Your task to perform on an android device: change timer sound Image 0: 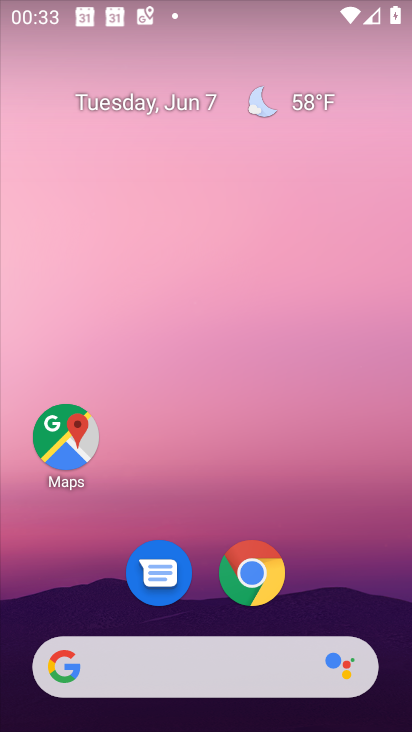
Step 0: drag from (266, 0) to (304, 0)
Your task to perform on an android device: change timer sound Image 1: 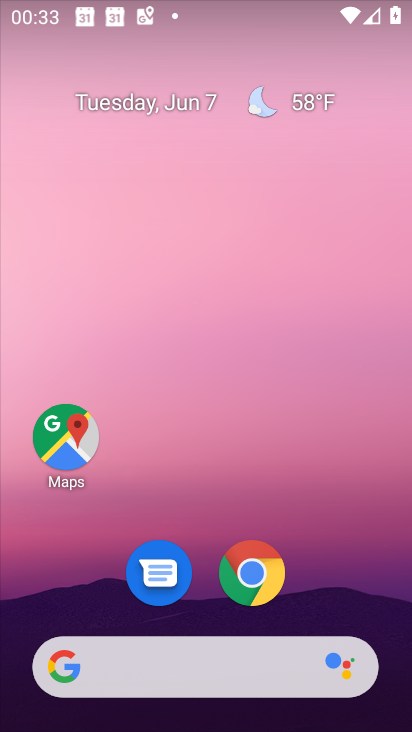
Step 1: drag from (373, 605) to (311, 220)
Your task to perform on an android device: change timer sound Image 2: 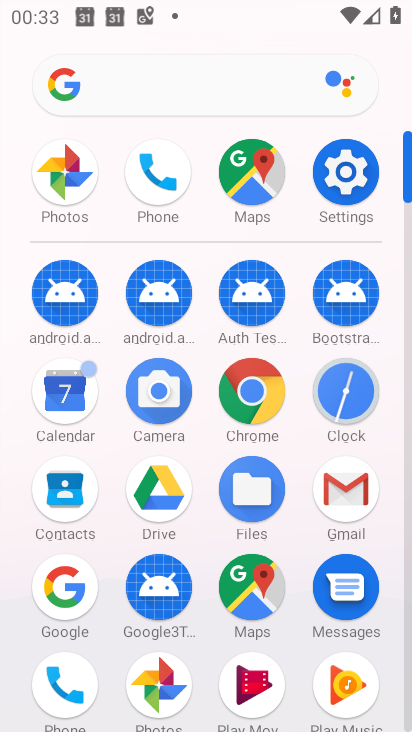
Step 2: click (350, 402)
Your task to perform on an android device: change timer sound Image 3: 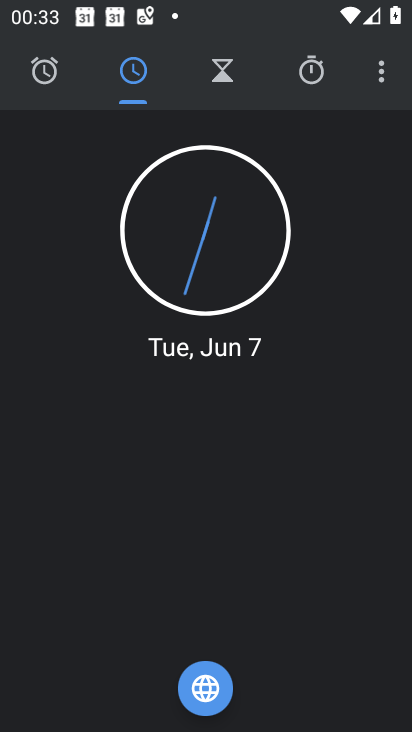
Step 3: click (395, 78)
Your task to perform on an android device: change timer sound Image 4: 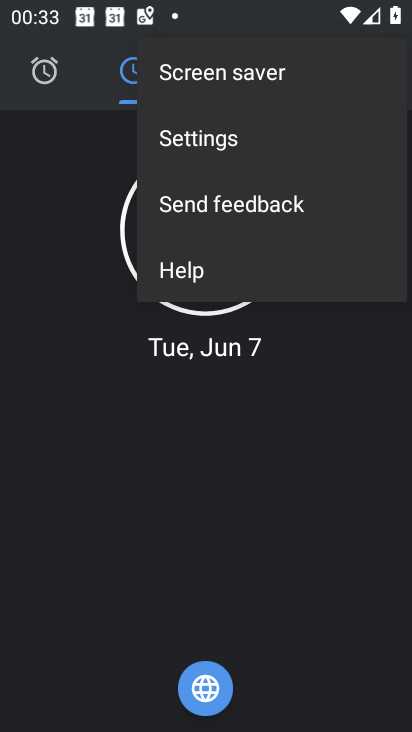
Step 4: click (220, 140)
Your task to perform on an android device: change timer sound Image 5: 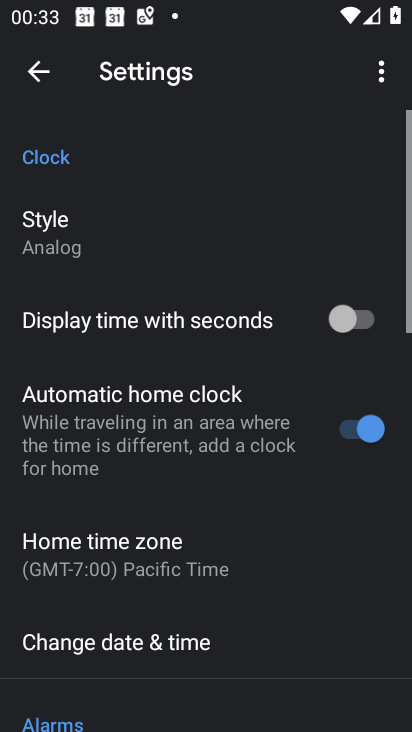
Step 5: drag from (296, 524) to (195, 169)
Your task to perform on an android device: change timer sound Image 6: 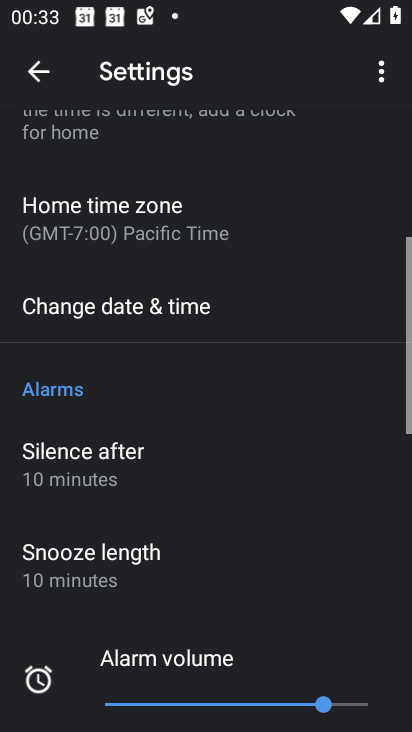
Step 6: drag from (223, 506) to (179, 261)
Your task to perform on an android device: change timer sound Image 7: 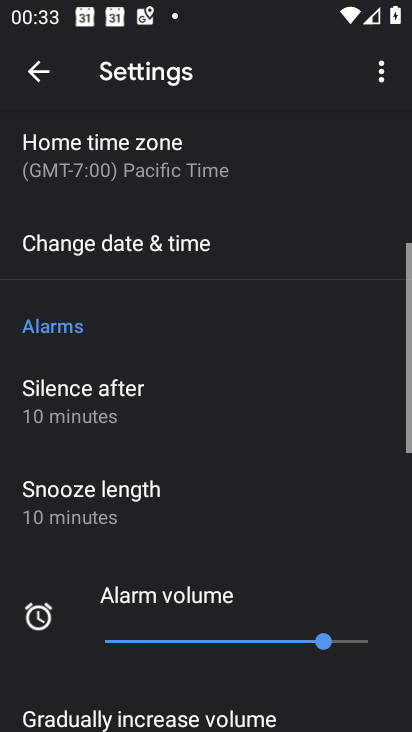
Step 7: drag from (320, 589) to (284, 355)
Your task to perform on an android device: change timer sound Image 8: 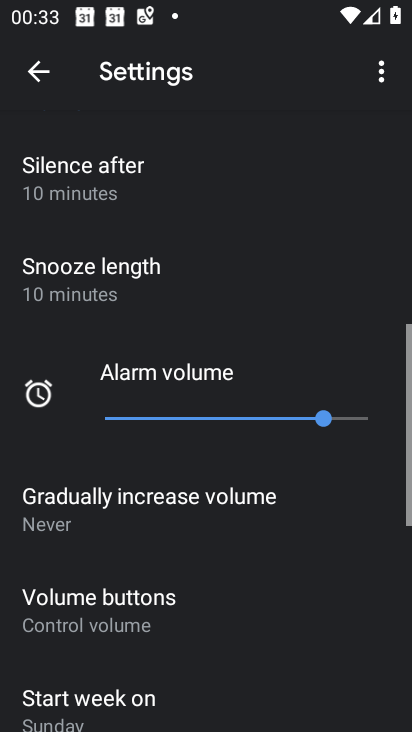
Step 8: drag from (395, 636) to (288, 349)
Your task to perform on an android device: change timer sound Image 9: 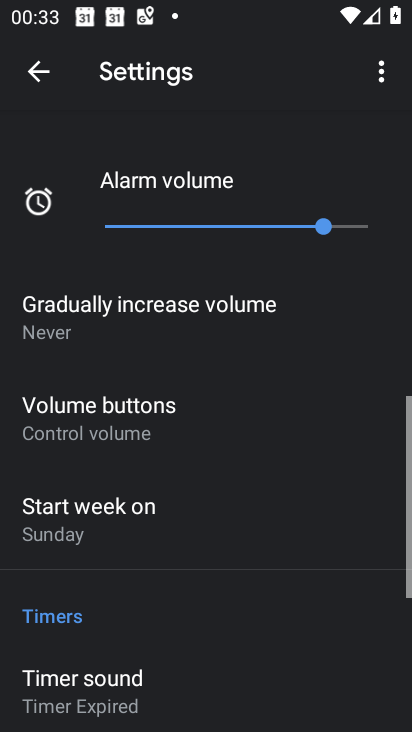
Step 9: drag from (295, 617) to (248, 447)
Your task to perform on an android device: change timer sound Image 10: 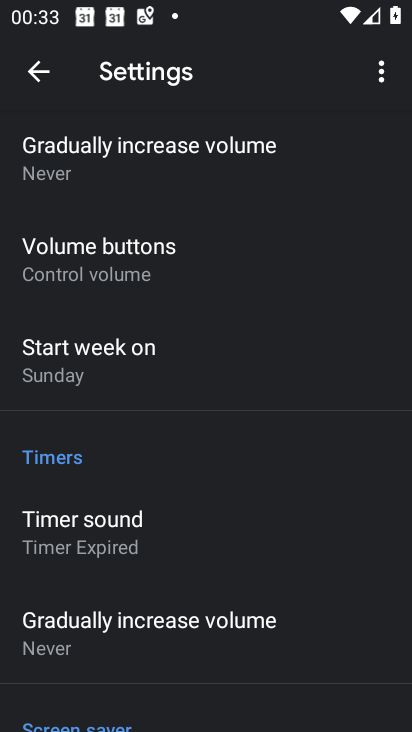
Step 10: click (166, 554)
Your task to perform on an android device: change timer sound Image 11: 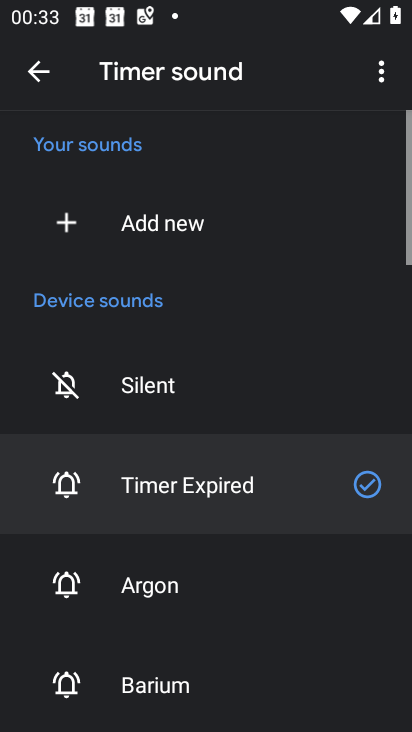
Step 11: click (192, 673)
Your task to perform on an android device: change timer sound Image 12: 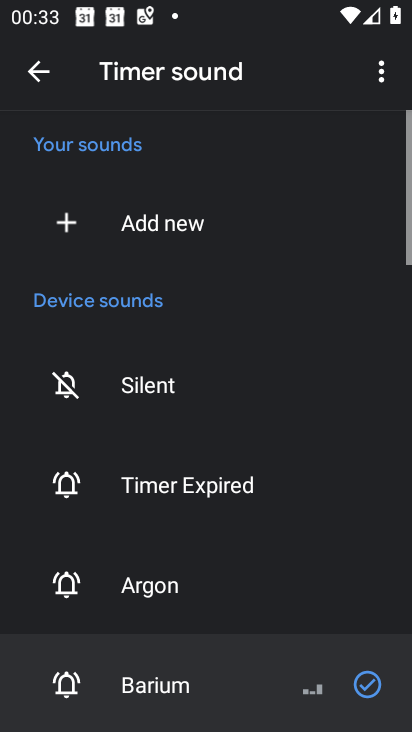
Step 12: task complete